Your task to perform on an android device: open a bookmark in the chrome app Image 0: 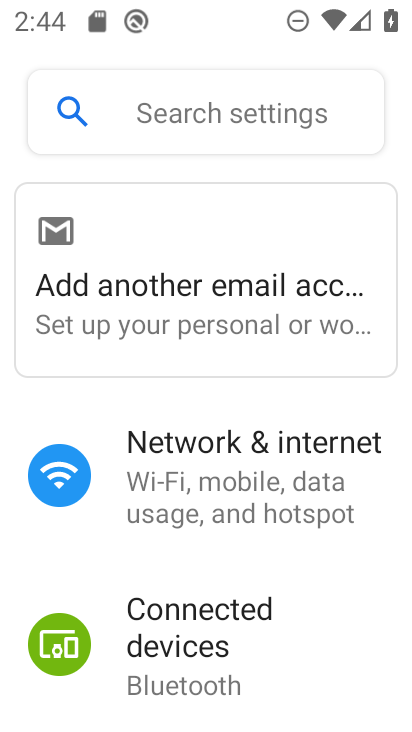
Step 0: press back button
Your task to perform on an android device: open a bookmark in the chrome app Image 1: 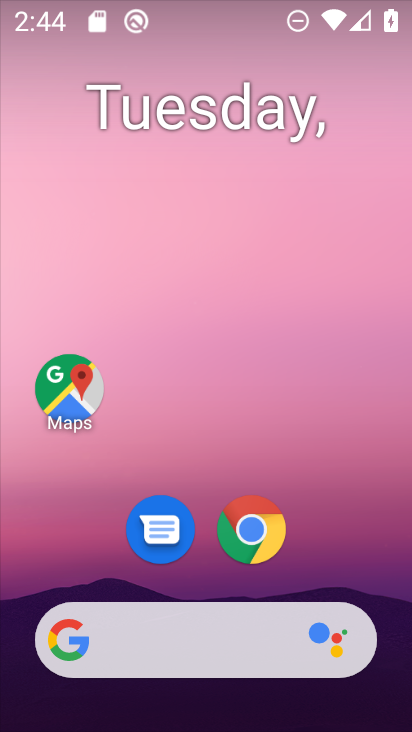
Step 1: click (246, 516)
Your task to perform on an android device: open a bookmark in the chrome app Image 2: 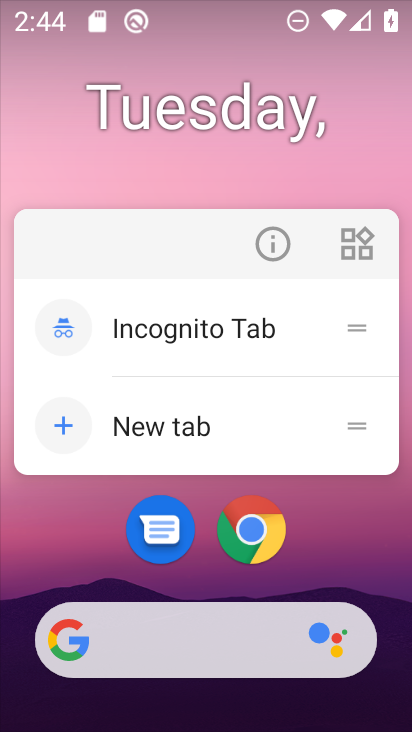
Step 2: click (243, 519)
Your task to perform on an android device: open a bookmark in the chrome app Image 3: 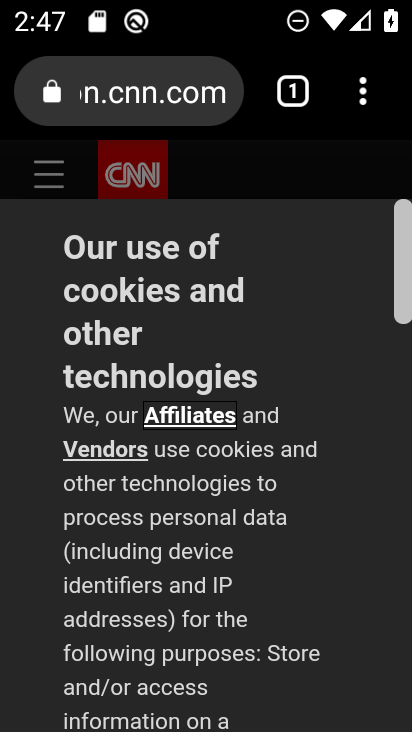
Step 3: task complete